Your task to perform on an android device: delete the emails in spam in the gmail app Image 0: 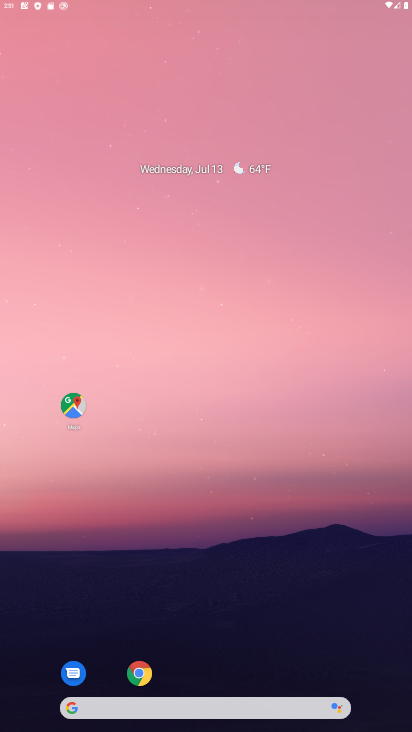
Step 0: drag from (293, 636) to (271, 68)
Your task to perform on an android device: delete the emails in spam in the gmail app Image 1: 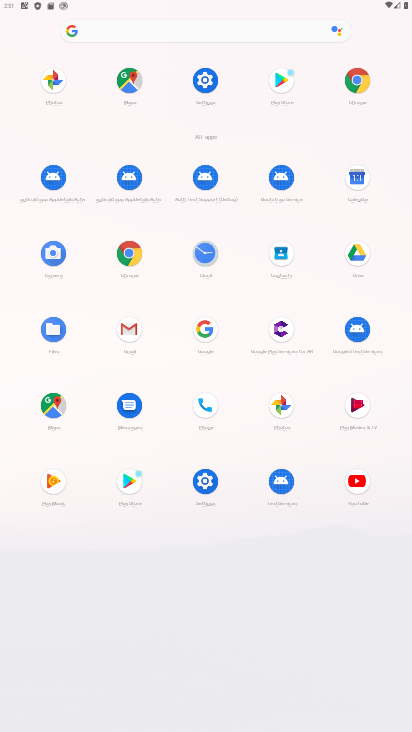
Step 1: click (132, 324)
Your task to perform on an android device: delete the emails in spam in the gmail app Image 2: 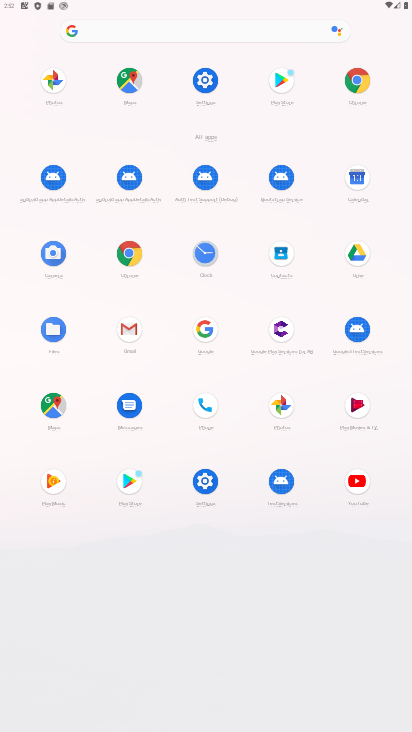
Step 2: click (134, 320)
Your task to perform on an android device: delete the emails in spam in the gmail app Image 3: 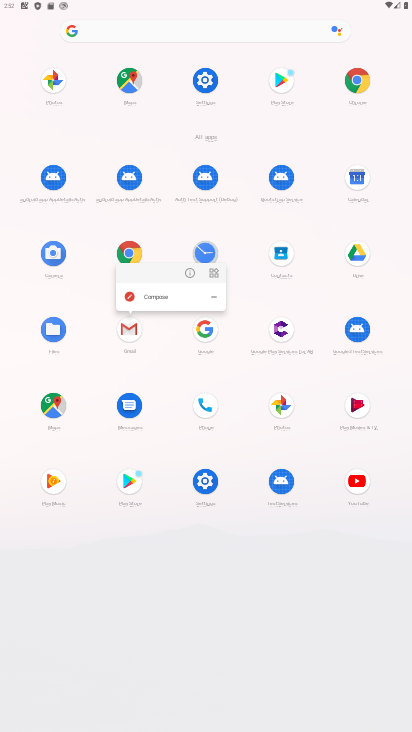
Step 3: click (121, 329)
Your task to perform on an android device: delete the emails in spam in the gmail app Image 4: 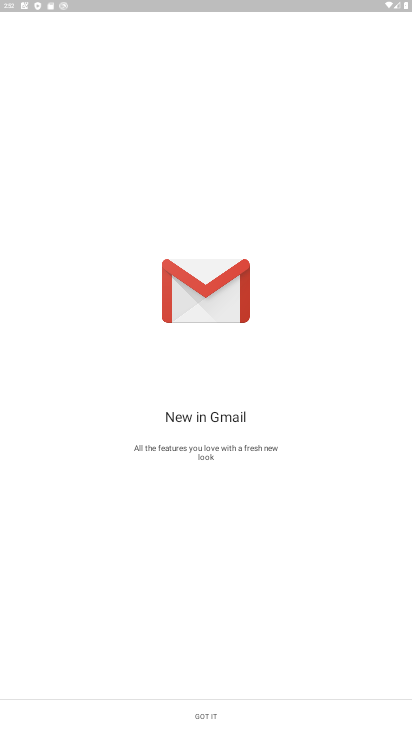
Step 4: click (213, 719)
Your task to perform on an android device: delete the emails in spam in the gmail app Image 5: 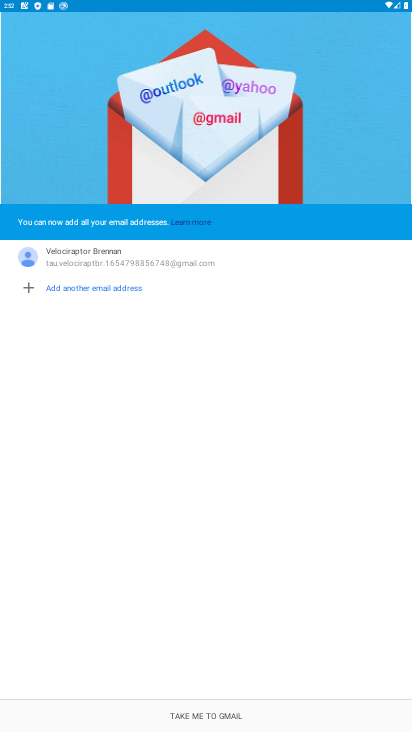
Step 5: click (224, 715)
Your task to perform on an android device: delete the emails in spam in the gmail app Image 6: 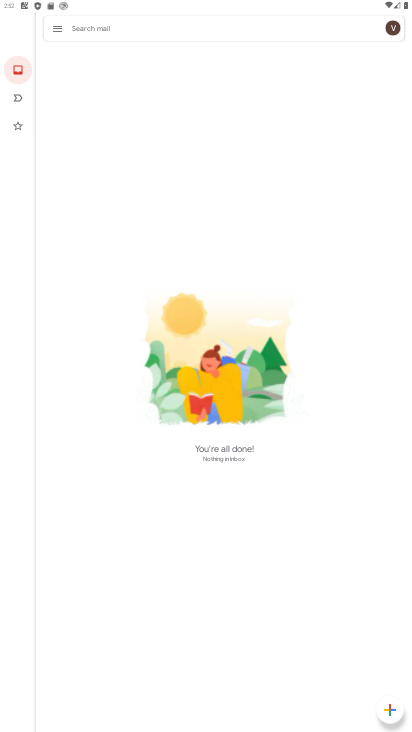
Step 6: task complete